Your task to perform on an android device: turn on location history Image 0: 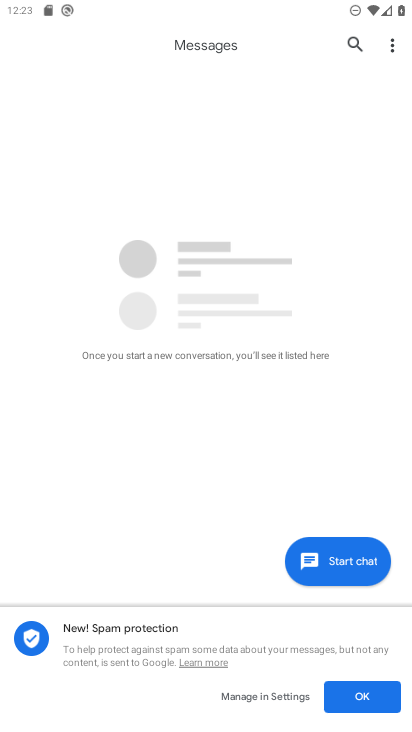
Step 0: drag from (190, 550) to (213, 83)
Your task to perform on an android device: turn on location history Image 1: 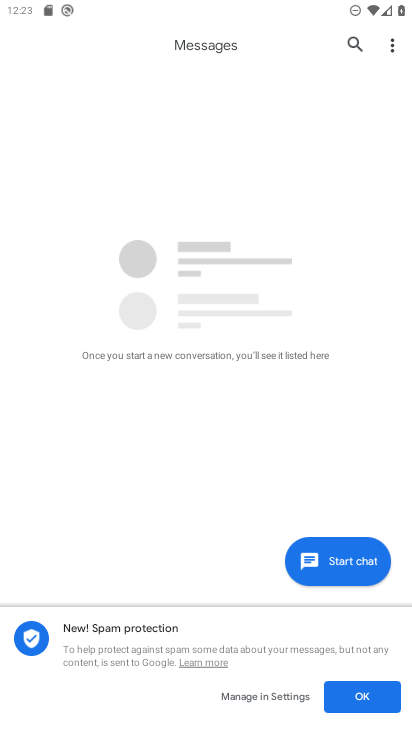
Step 1: press home button
Your task to perform on an android device: turn on location history Image 2: 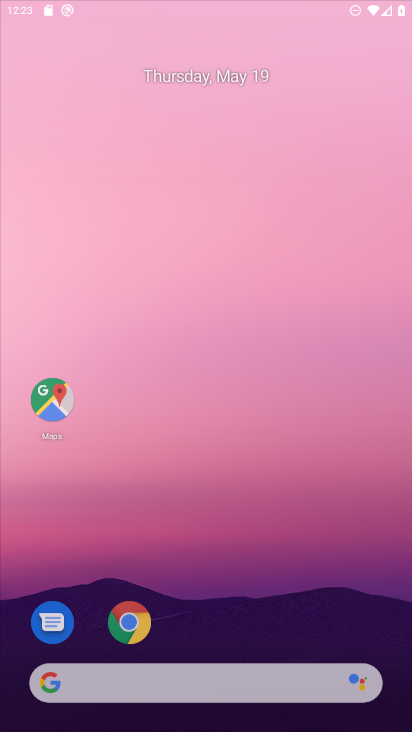
Step 2: drag from (110, 579) to (158, 12)
Your task to perform on an android device: turn on location history Image 3: 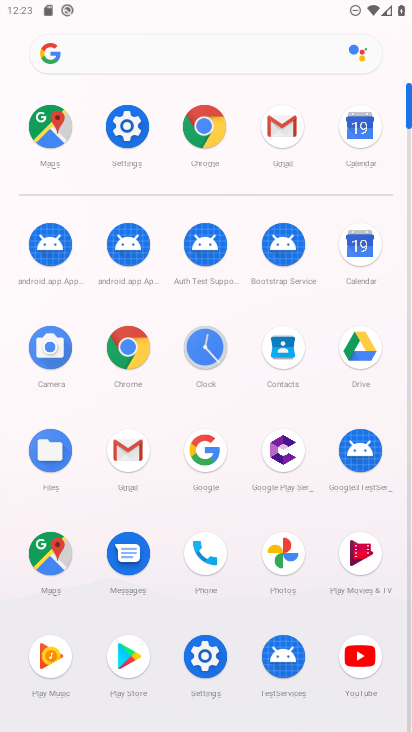
Step 3: click (120, 116)
Your task to perform on an android device: turn on location history Image 4: 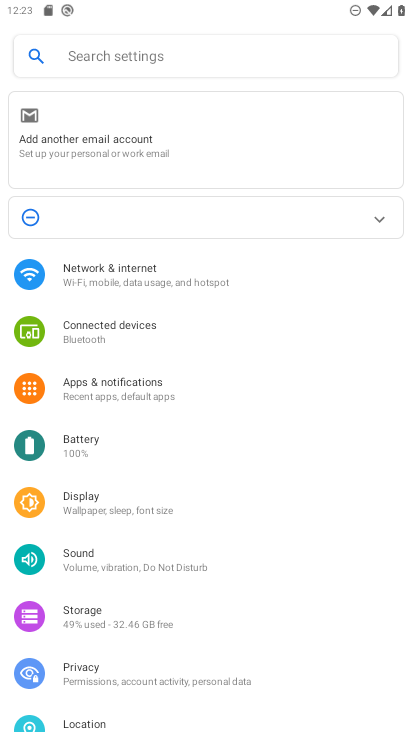
Step 4: drag from (219, 615) to (219, 253)
Your task to perform on an android device: turn on location history Image 5: 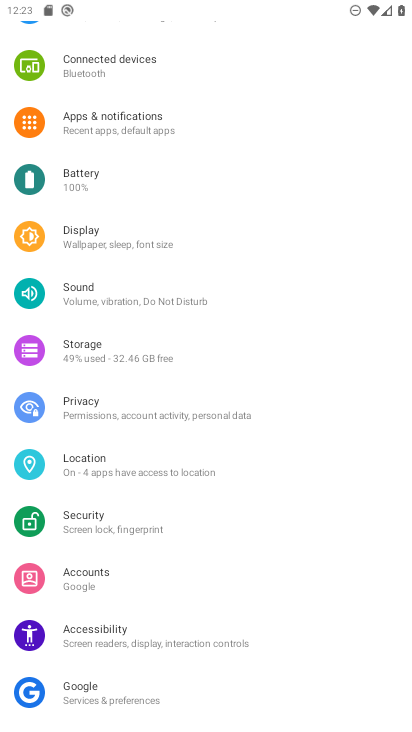
Step 5: click (107, 465)
Your task to perform on an android device: turn on location history Image 6: 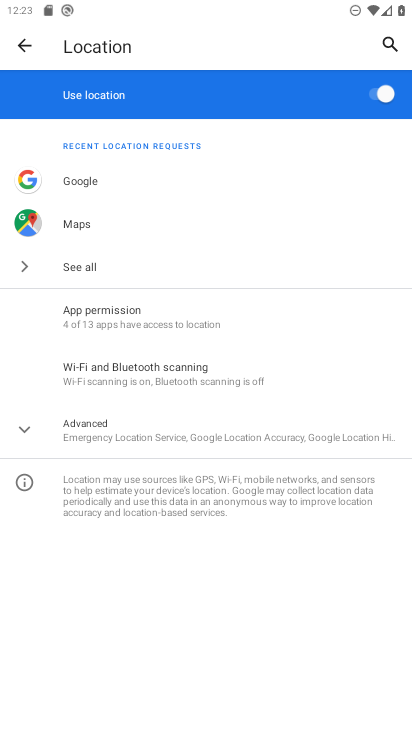
Step 6: click (123, 444)
Your task to perform on an android device: turn on location history Image 7: 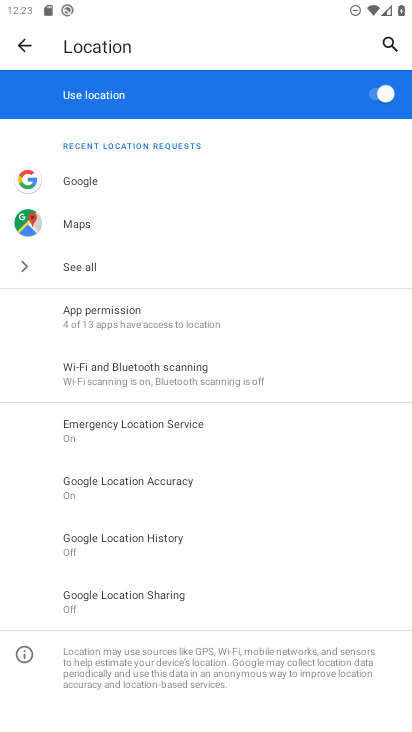
Step 7: click (176, 541)
Your task to perform on an android device: turn on location history Image 8: 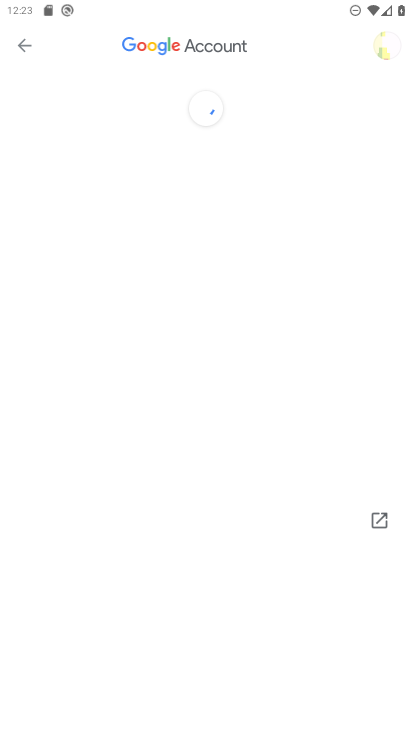
Step 8: drag from (161, 593) to (182, 150)
Your task to perform on an android device: turn on location history Image 9: 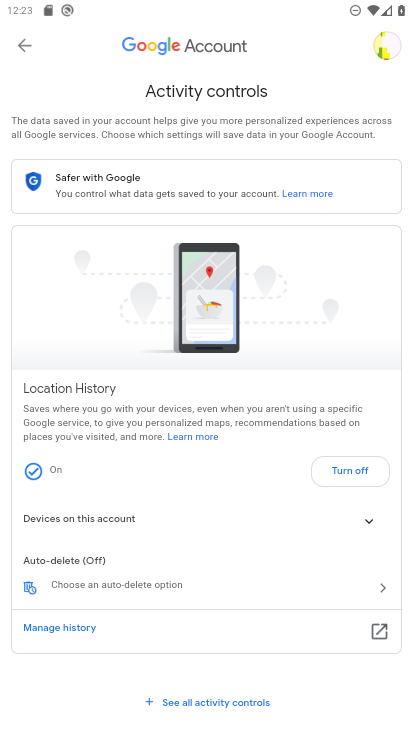
Step 9: click (350, 470)
Your task to perform on an android device: turn on location history Image 10: 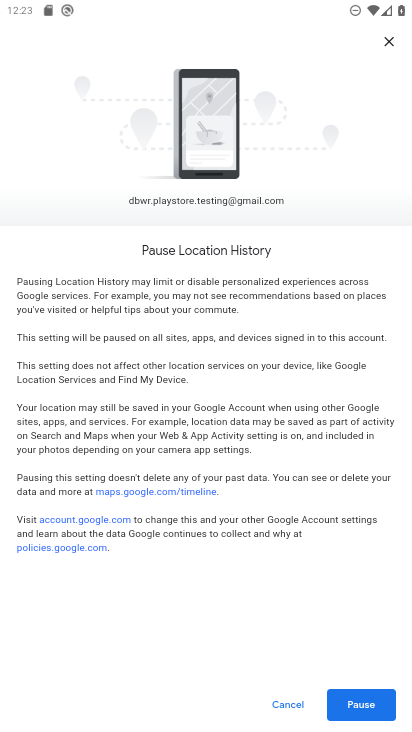
Step 10: click (366, 703)
Your task to perform on an android device: turn on location history Image 11: 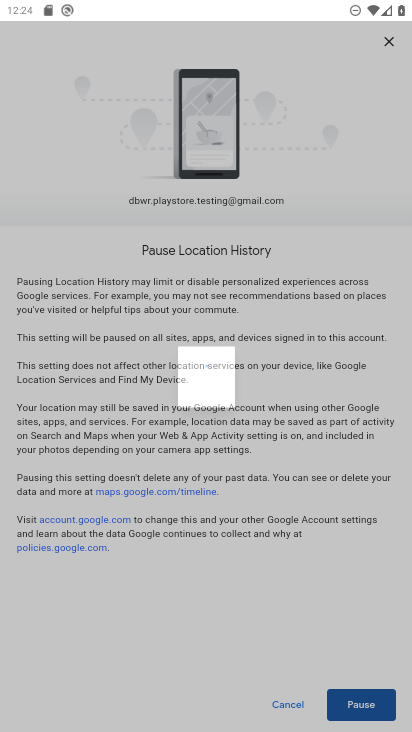
Step 11: task complete